Your task to perform on an android device: Search for Italian restaurants on Maps Image 0: 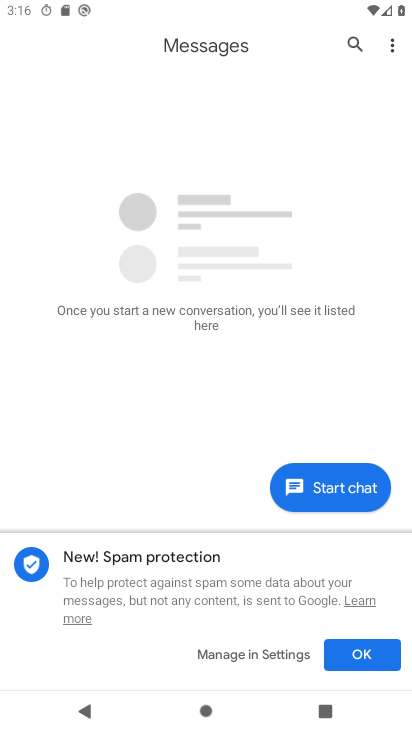
Step 0: press home button
Your task to perform on an android device: Search for Italian restaurants on Maps Image 1: 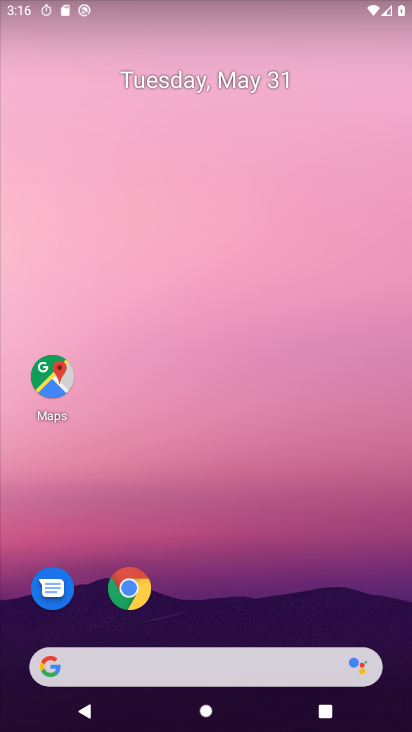
Step 1: drag from (262, 666) to (270, 154)
Your task to perform on an android device: Search for Italian restaurants on Maps Image 2: 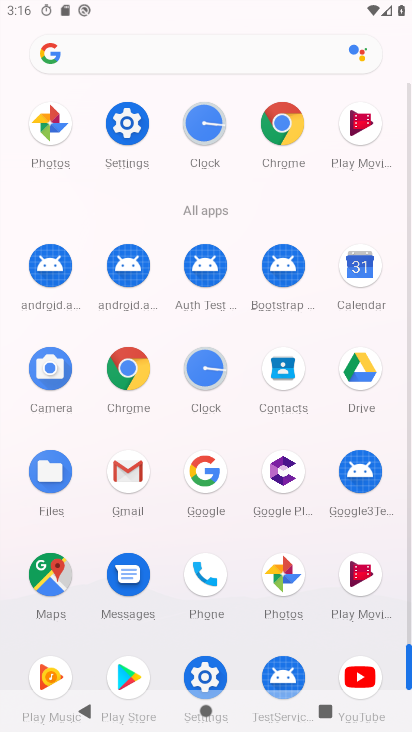
Step 2: click (58, 583)
Your task to perform on an android device: Search for Italian restaurants on Maps Image 3: 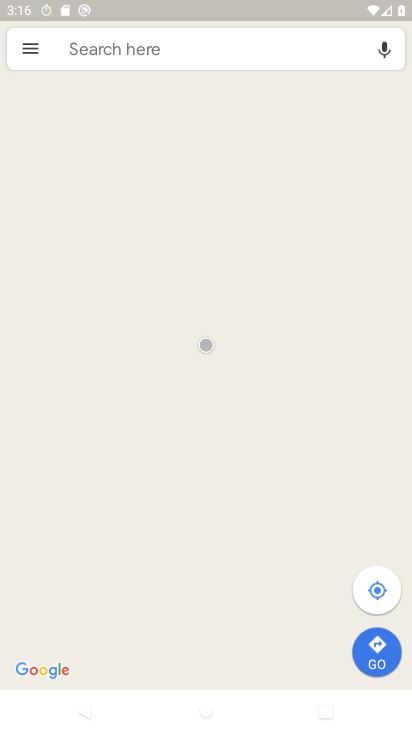
Step 3: click (149, 63)
Your task to perform on an android device: Search for Italian restaurants on Maps Image 4: 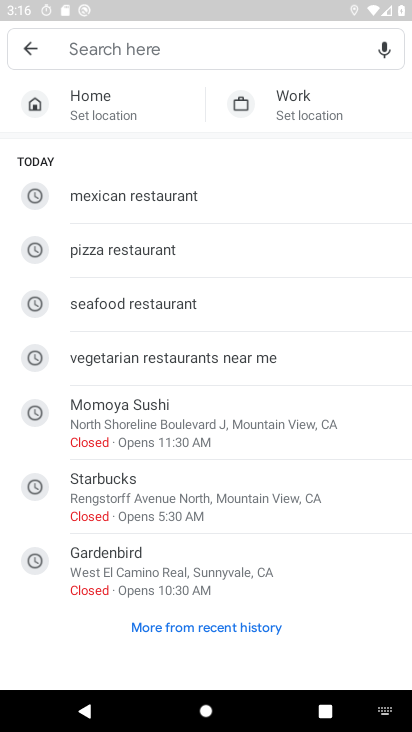
Step 4: drag from (184, 473) to (173, 225)
Your task to perform on an android device: Search for Italian restaurants on Maps Image 5: 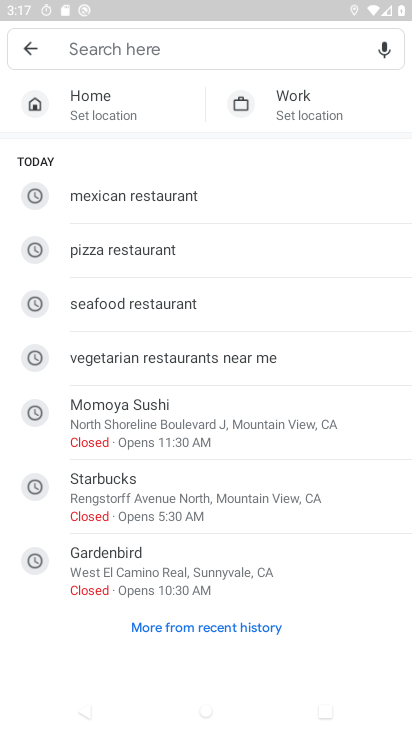
Step 5: click (214, 49)
Your task to perform on an android device: Search for Italian restaurants on Maps Image 6: 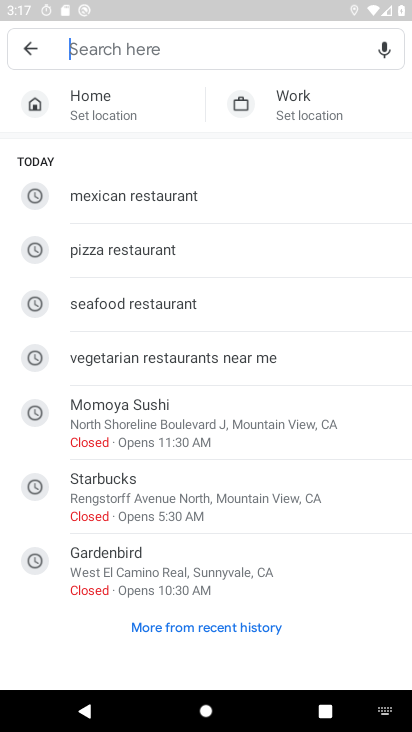
Step 6: type "italian"
Your task to perform on an android device: Search for Italian restaurants on Maps Image 7: 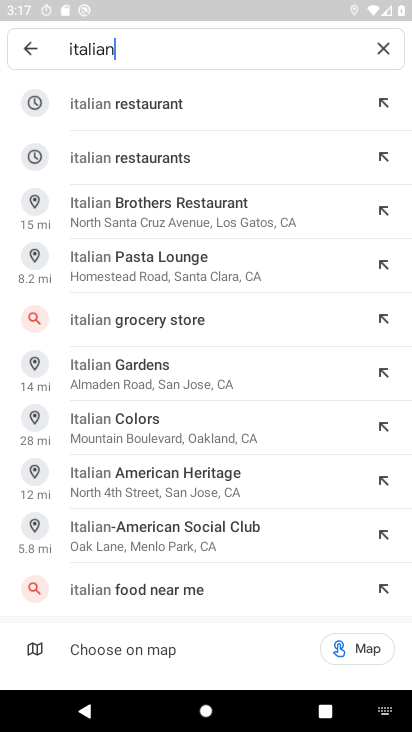
Step 7: click (196, 106)
Your task to perform on an android device: Search for Italian restaurants on Maps Image 8: 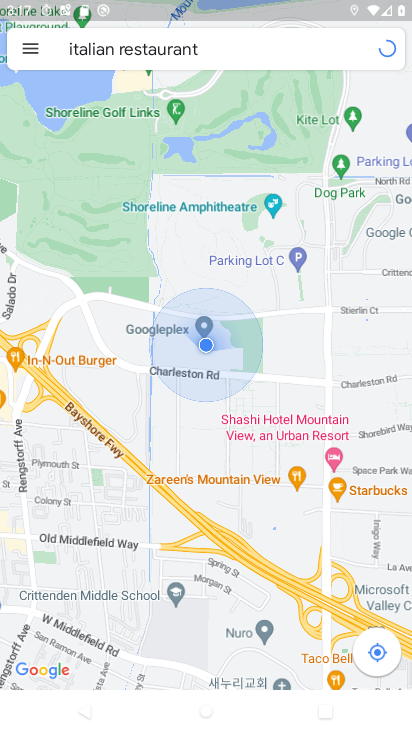
Step 8: task complete